Your task to perform on an android device: What is the recent news? Image 0: 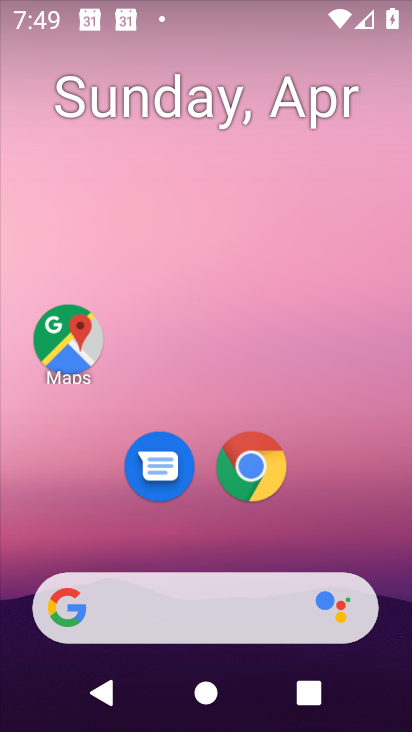
Step 0: click (185, 603)
Your task to perform on an android device: What is the recent news? Image 1: 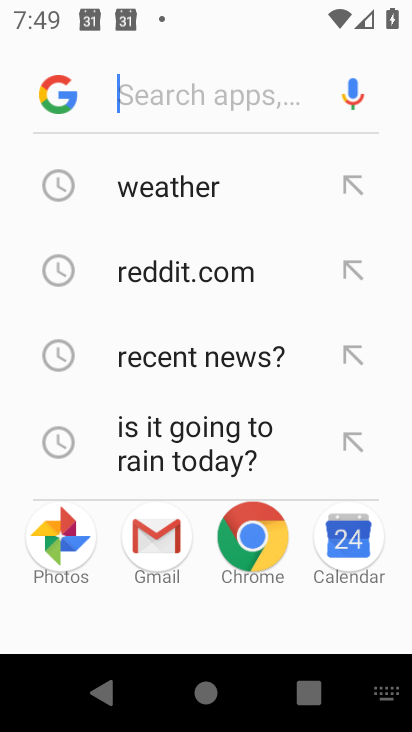
Step 1: type "recent news"
Your task to perform on an android device: What is the recent news? Image 2: 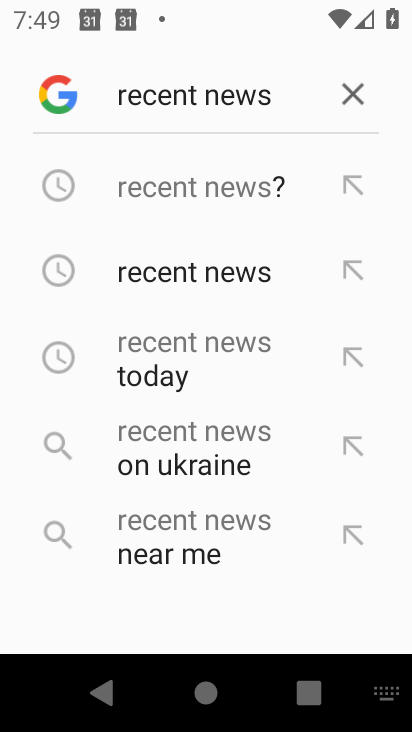
Step 2: click (230, 193)
Your task to perform on an android device: What is the recent news? Image 3: 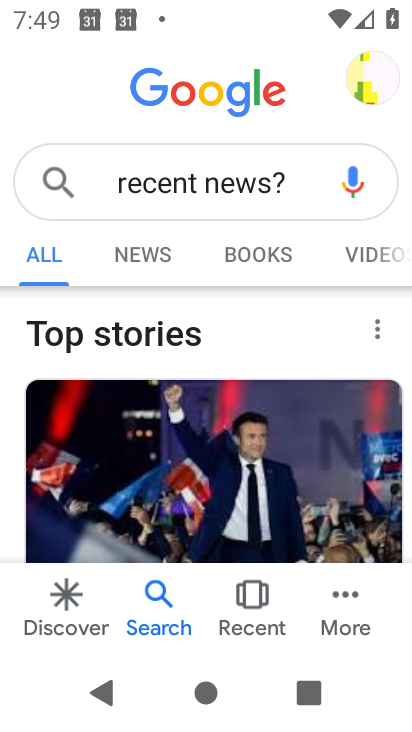
Step 3: task complete